Your task to perform on an android device: Go to Yahoo.com Image 0: 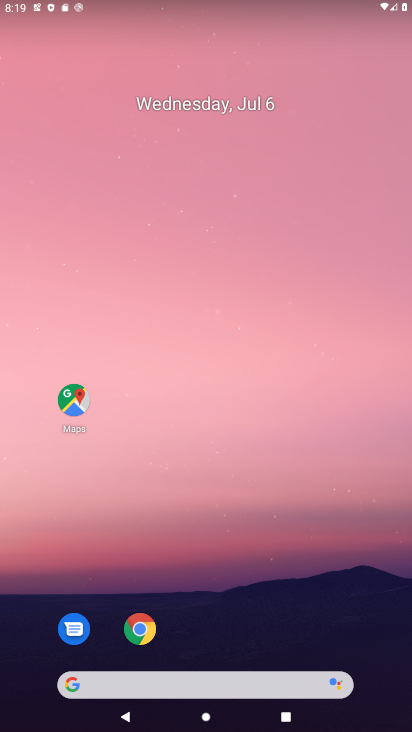
Step 0: click (140, 628)
Your task to perform on an android device: Go to Yahoo.com Image 1: 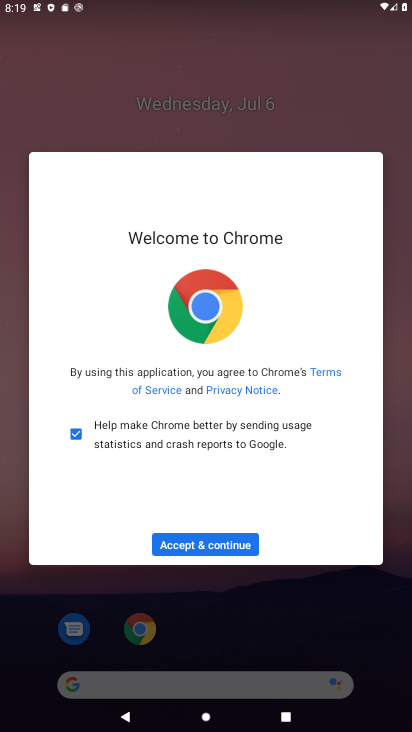
Step 1: click (212, 540)
Your task to perform on an android device: Go to Yahoo.com Image 2: 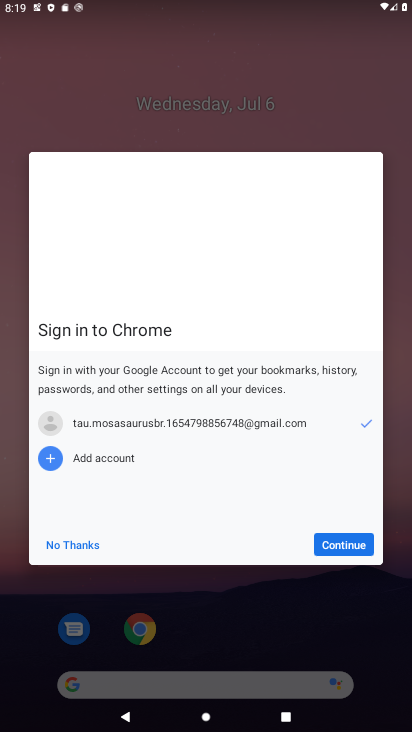
Step 2: click (333, 537)
Your task to perform on an android device: Go to Yahoo.com Image 3: 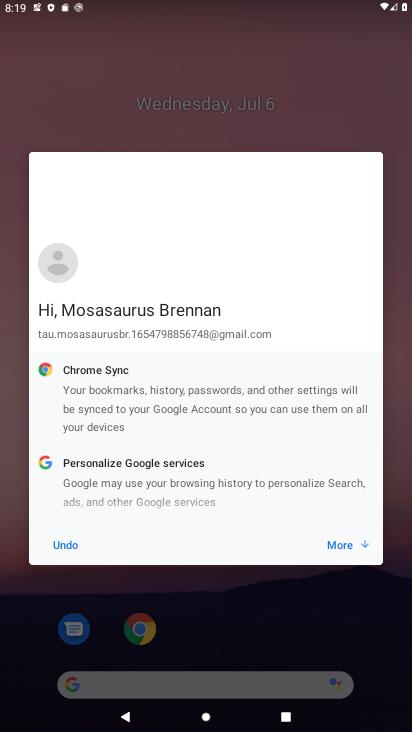
Step 3: click (347, 542)
Your task to perform on an android device: Go to Yahoo.com Image 4: 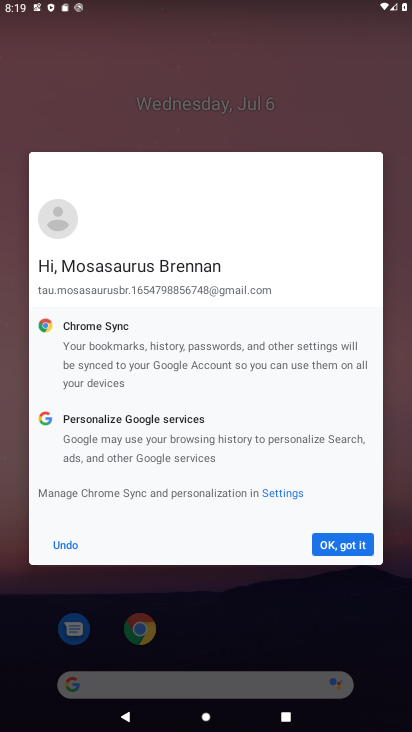
Step 4: click (342, 540)
Your task to perform on an android device: Go to Yahoo.com Image 5: 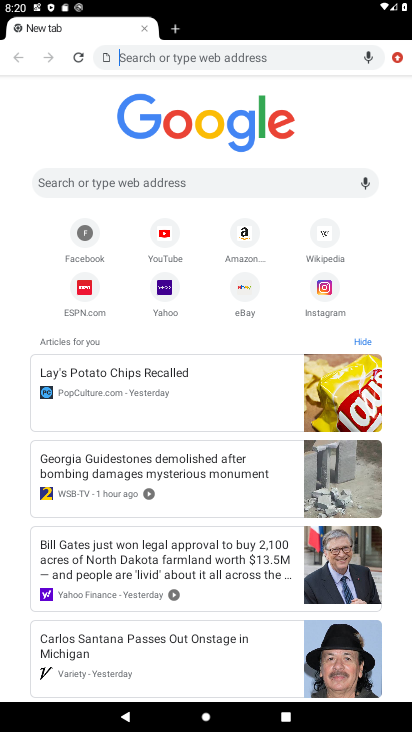
Step 5: click (168, 283)
Your task to perform on an android device: Go to Yahoo.com Image 6: 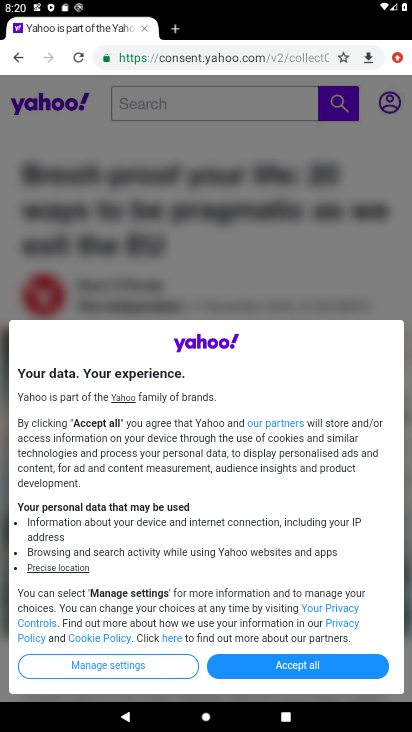
Step 6: click (262, 667)
Your task to perform on an android device: Go to Yahoo.com Image 7: 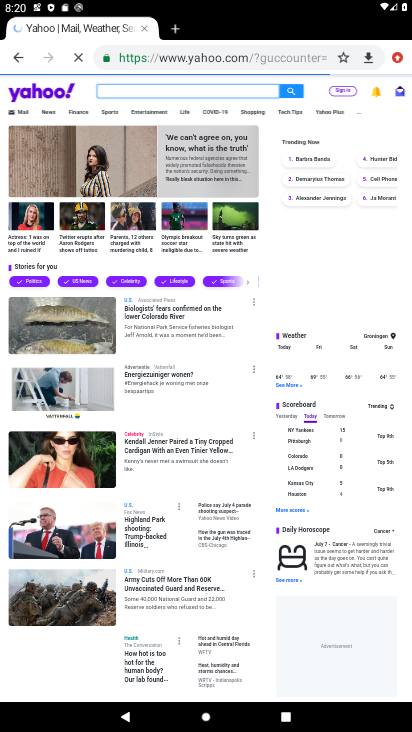
Step 7: task complete